Your task to perform on an android device: uninstall "DoorDash - Food Delivery" Image 0: 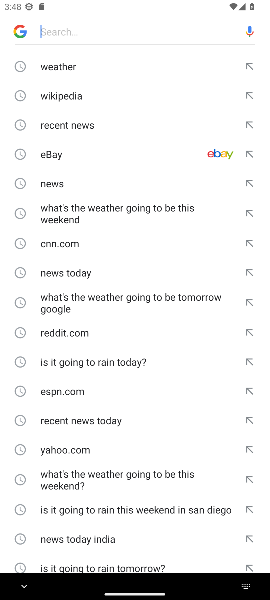
Step 0: press home button
Your task to perform on an android device: uninstall "DoorDash - Food Delivery" Image 1: 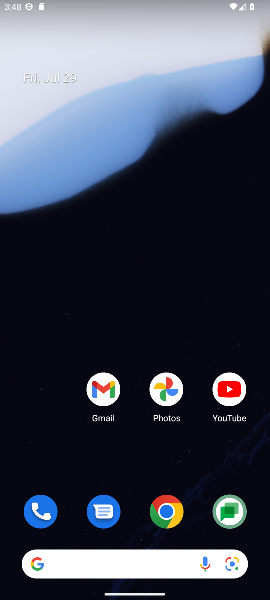
Step 1: drag from (7, 580) to (165, 161)
Your task to perform on an android device: uninstall "DoorDash - Food Delivery" Image 2: 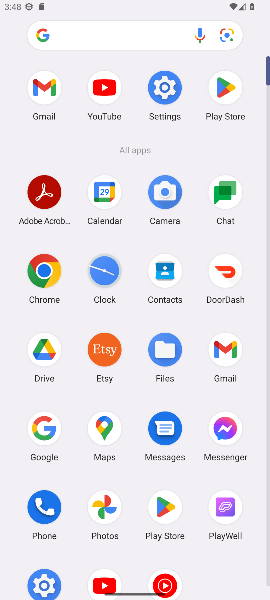
Step 2: click (161, 510)
Your task to perform on an android device: uninstall "DoorDash - Food Delivery" Image 3: 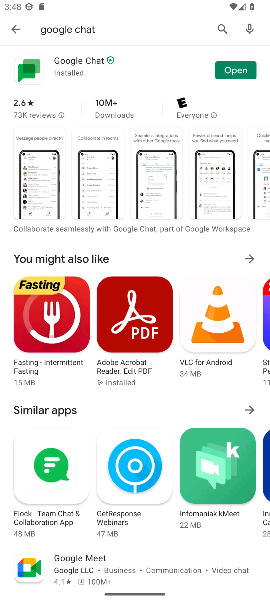
Step 3: click (18, 28)
Your task to perform on an android device: uninstall "DoorDash - Food Delivery" Image 4: 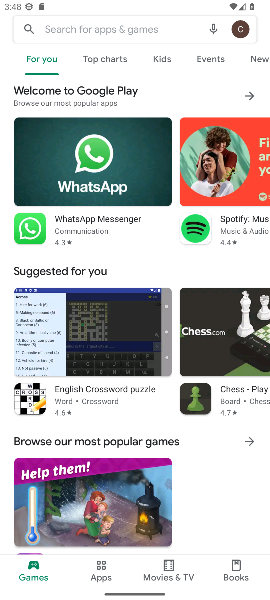
Step 4: click (43, 23)
Your task to perform on an android device: uninstall "DoorDash - Food Delivery" Image 5: 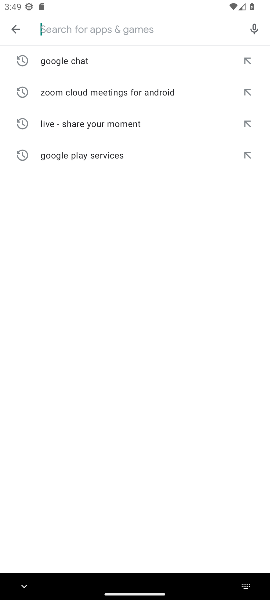
Step 5: type "DoorDash - Food Delivery"
Your task to perform on an android device: uninstall "DoorDash - Food Delivery" Image 6: 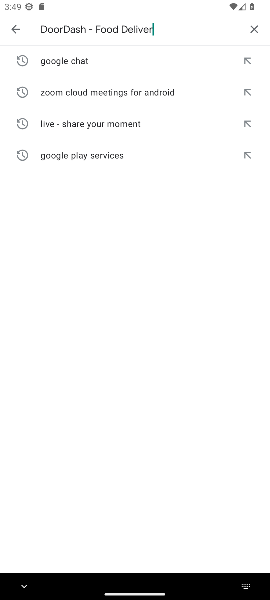
Step 6: type ""
Your task to perform on an android device: uninstall "DoorDash - Food Delivery" Image 7: 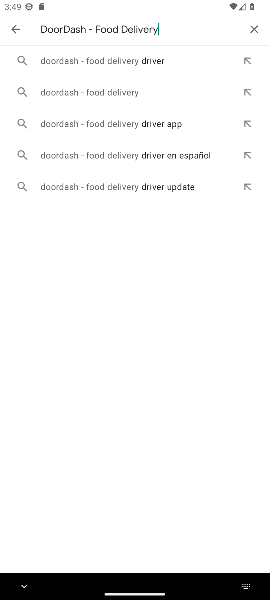
Step 7: click (99, 93)
Your task to perform on an android device: uninstall "DoorDash - Food Delivery" Image 8: 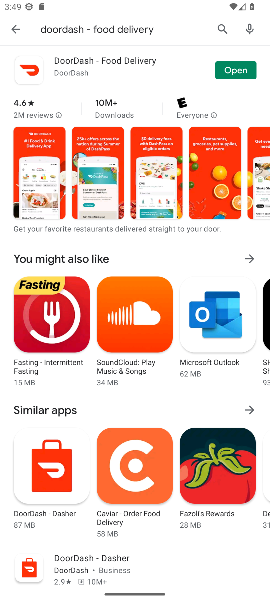
Step 8: click (239, 71)
Your task to perform on an android device: uninstall "DoorDash - Food Delivery" Image 9: 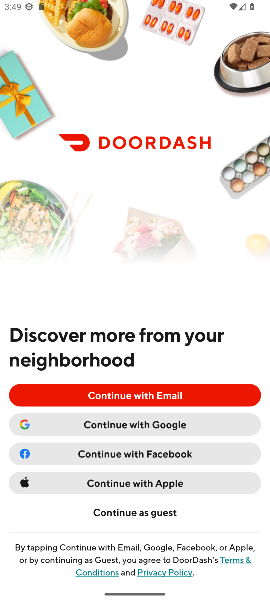
Step 9: task complete